Your task to perform on an android device: Play the new Beyonce video on YouTube Image 0: 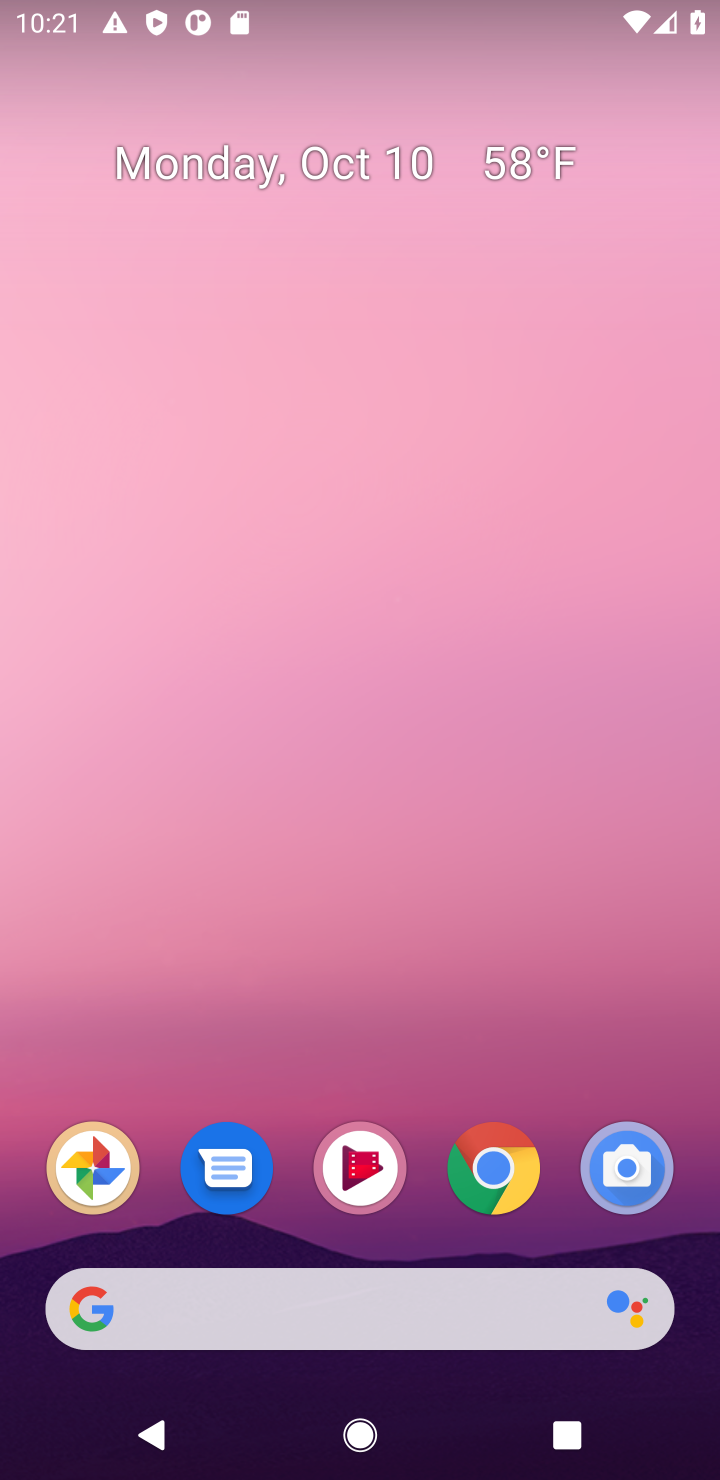
Step 0: drag from (386, 859) to (446, 407)
Your task to perform on an android device: Play the new Beyonce video on YouTube Image 1: 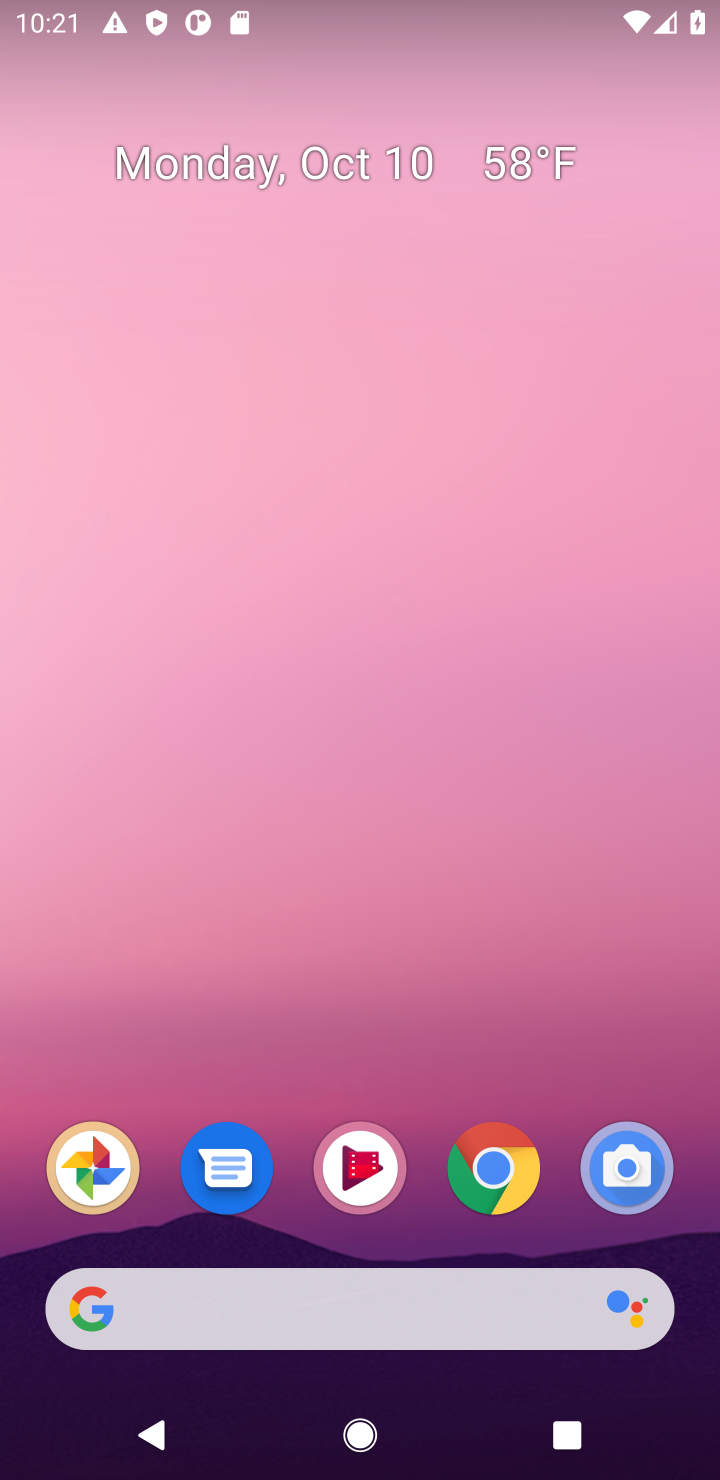
Step 1: drag from (359, 665) to (387, 274)
Your task to perform on an android device: Play the new Beyonce video on YouTube Image 2: 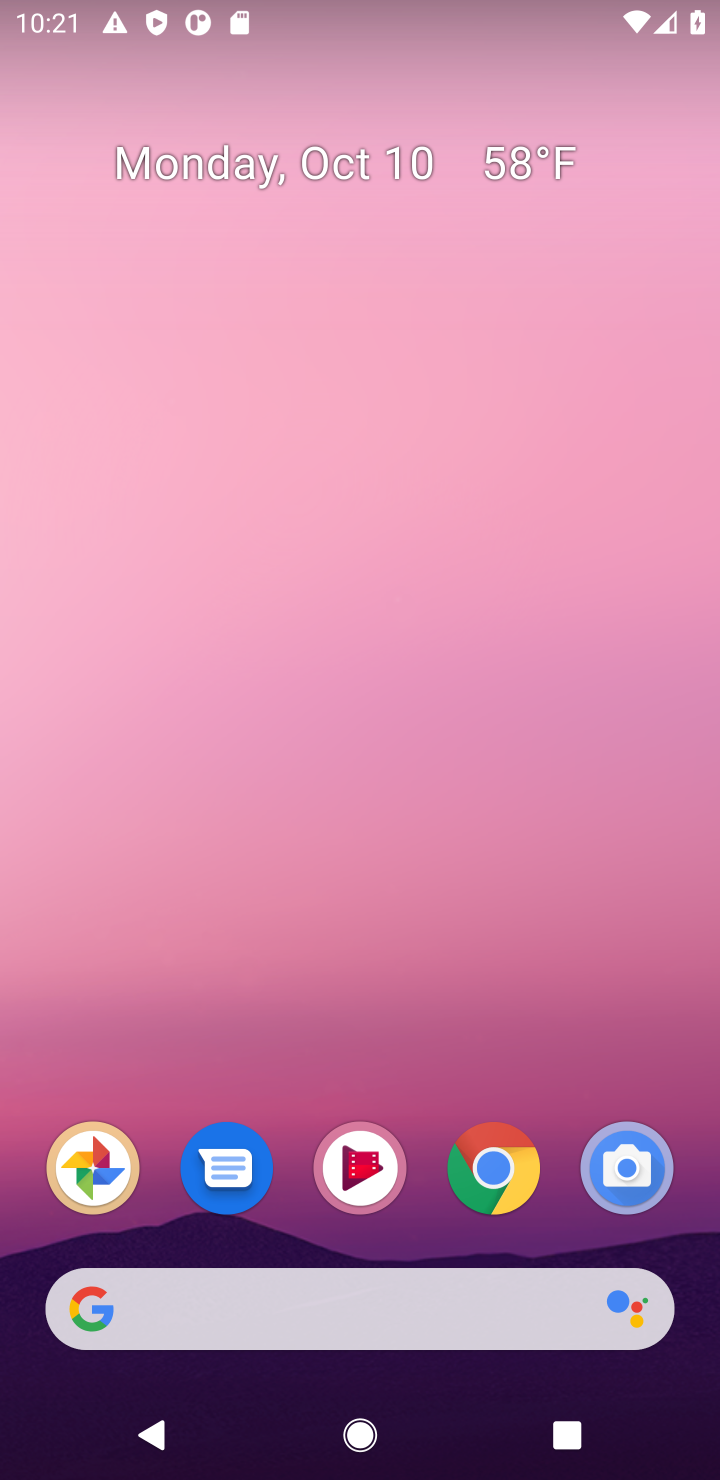
Step 2: drag from (346, 985) to (362, 303)
Your task to perform on an android device: Play the new Beyonce video on YouTube Image 3: 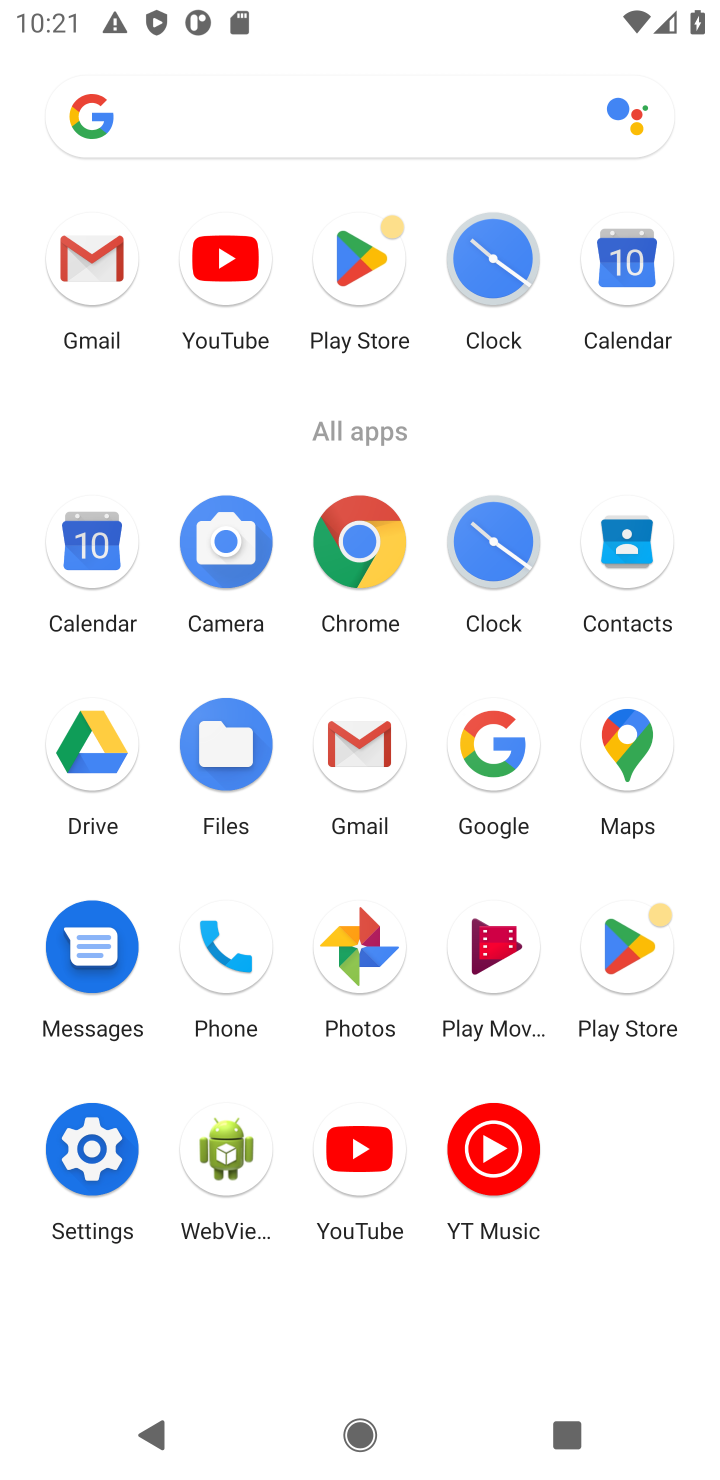
Step 3: click (238, 267)
Your task to perform on an android device: Play the new Beyonce video on YouTube Image 4: 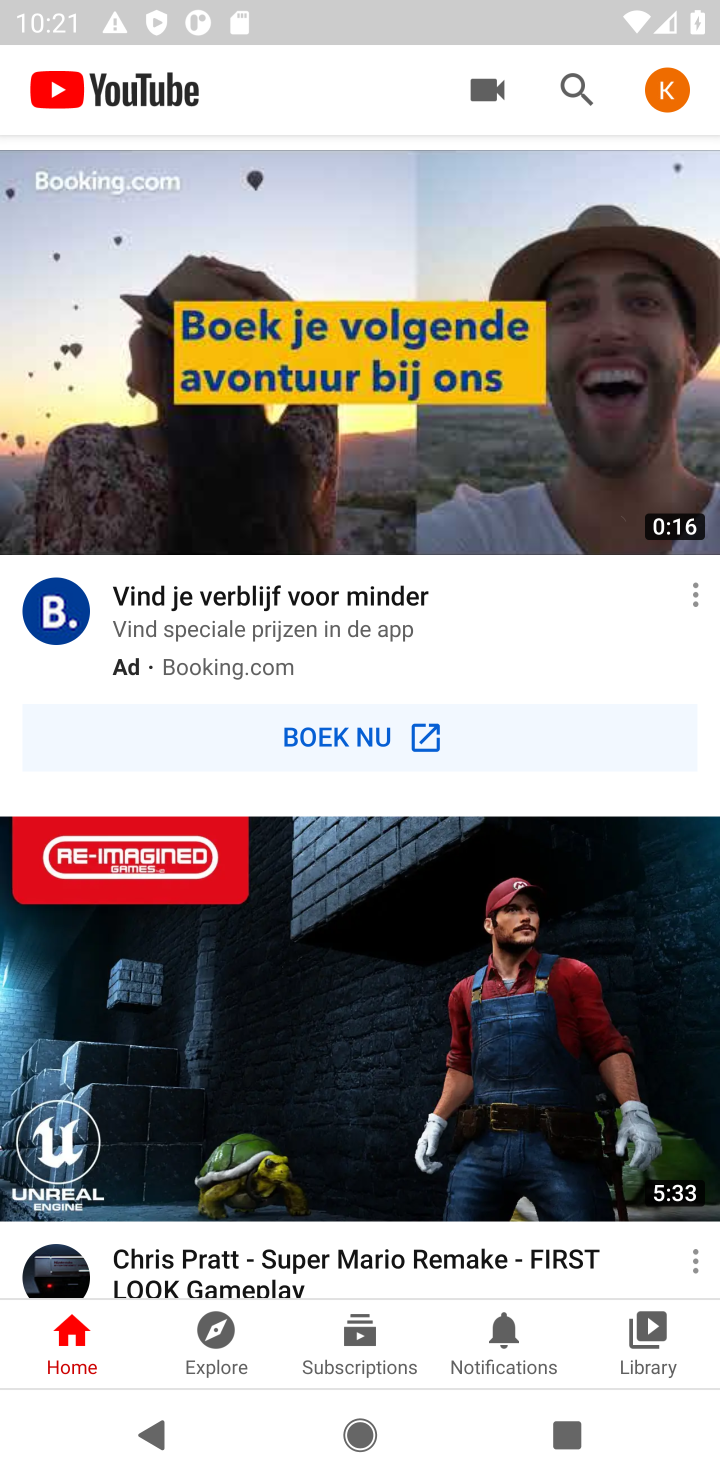
Step 4: click (591, 90)
Your task to perform on an android device: Play the new Beyonce video on YouTube Image 5: 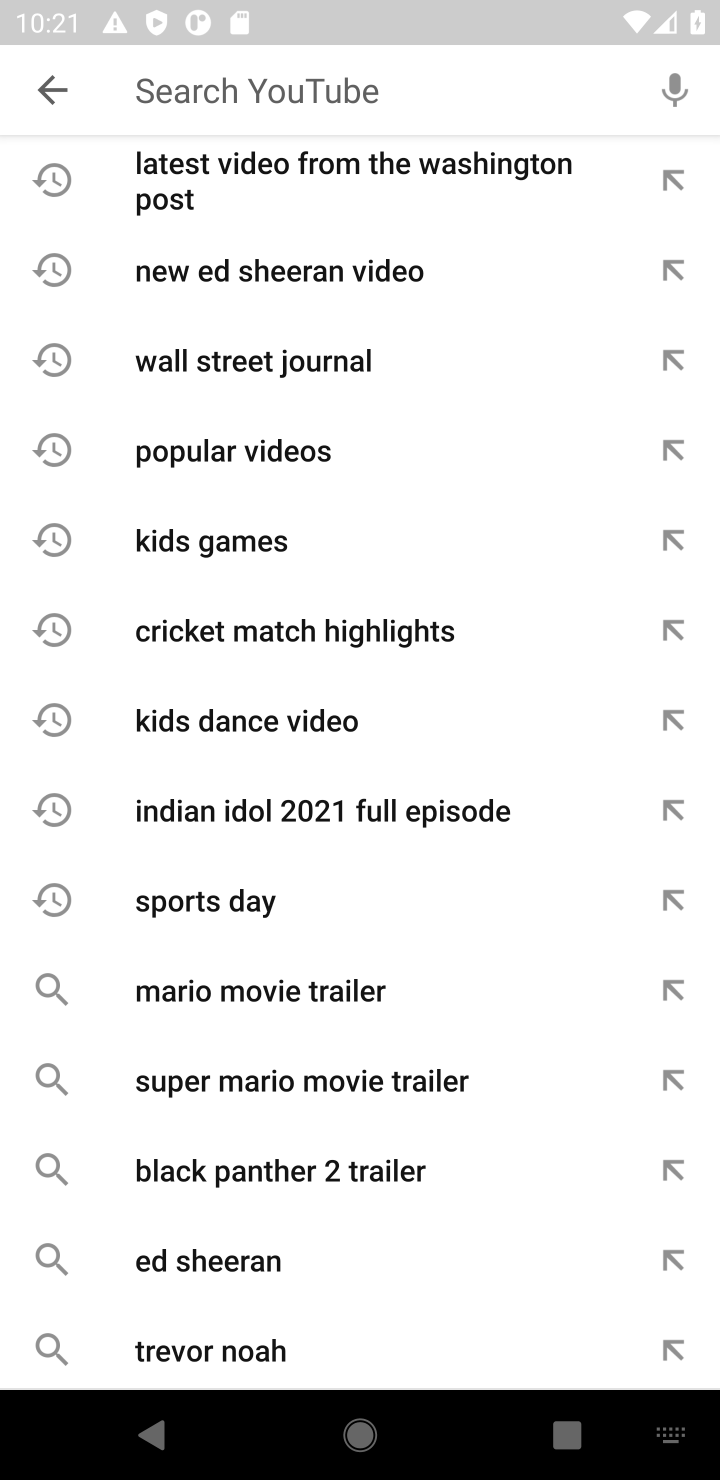
Step 5: type "Beyonce video on YouTube"
Your task to perform on an android device: Play the new Beyonce video on YouTube Image 6: 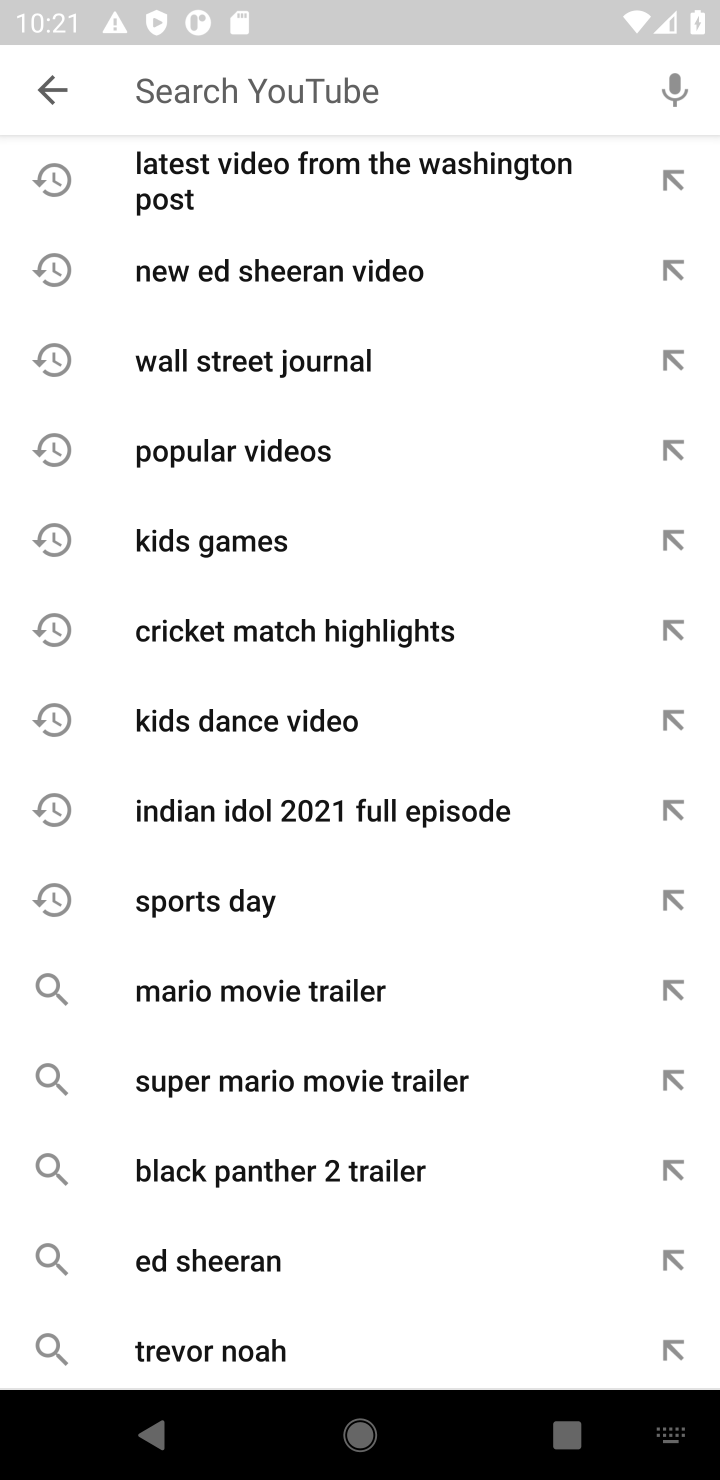
Step 6: click (339, 100)
Your task to perform on an android device: Play the new Beyonce video on YouTube Image 7: 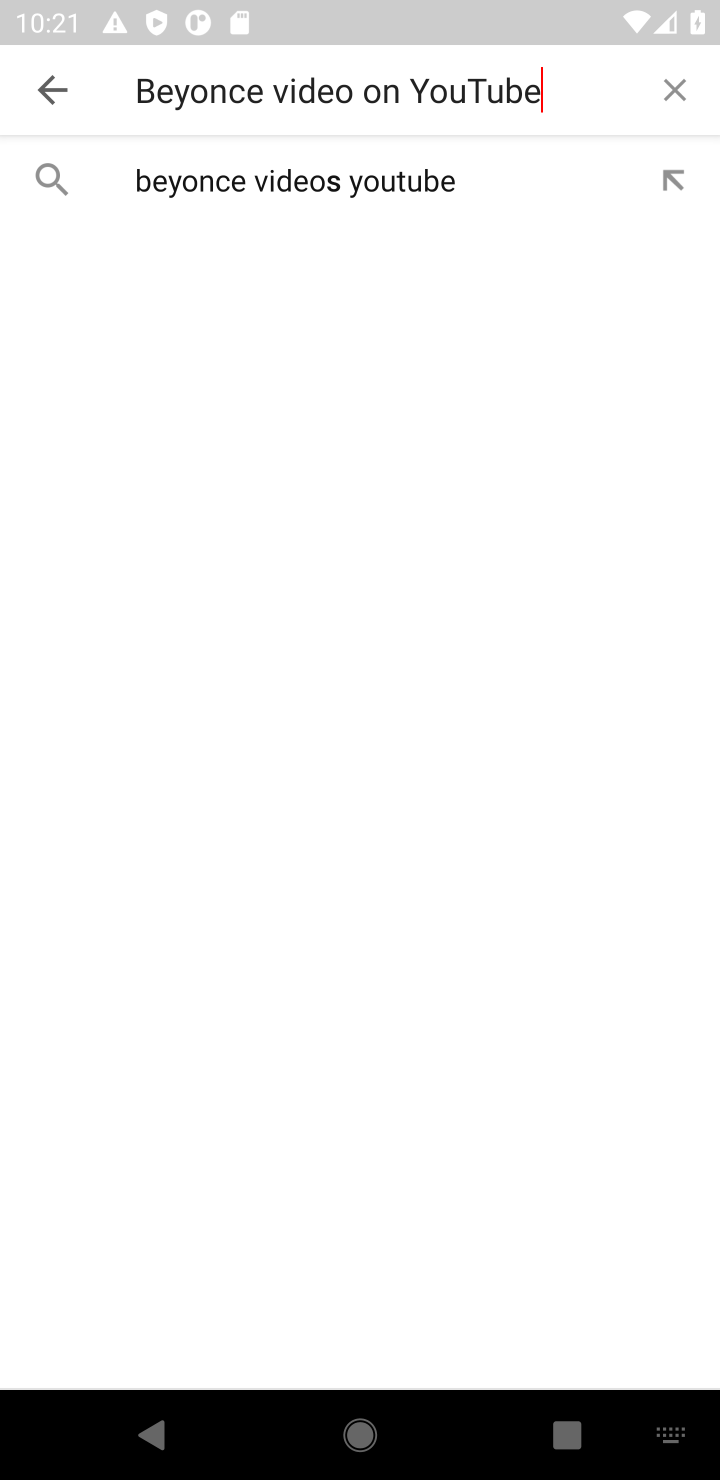
Step 7: type ""
Your task to perform on an android device: Play the new Beyonce video on YouTube Image 8: 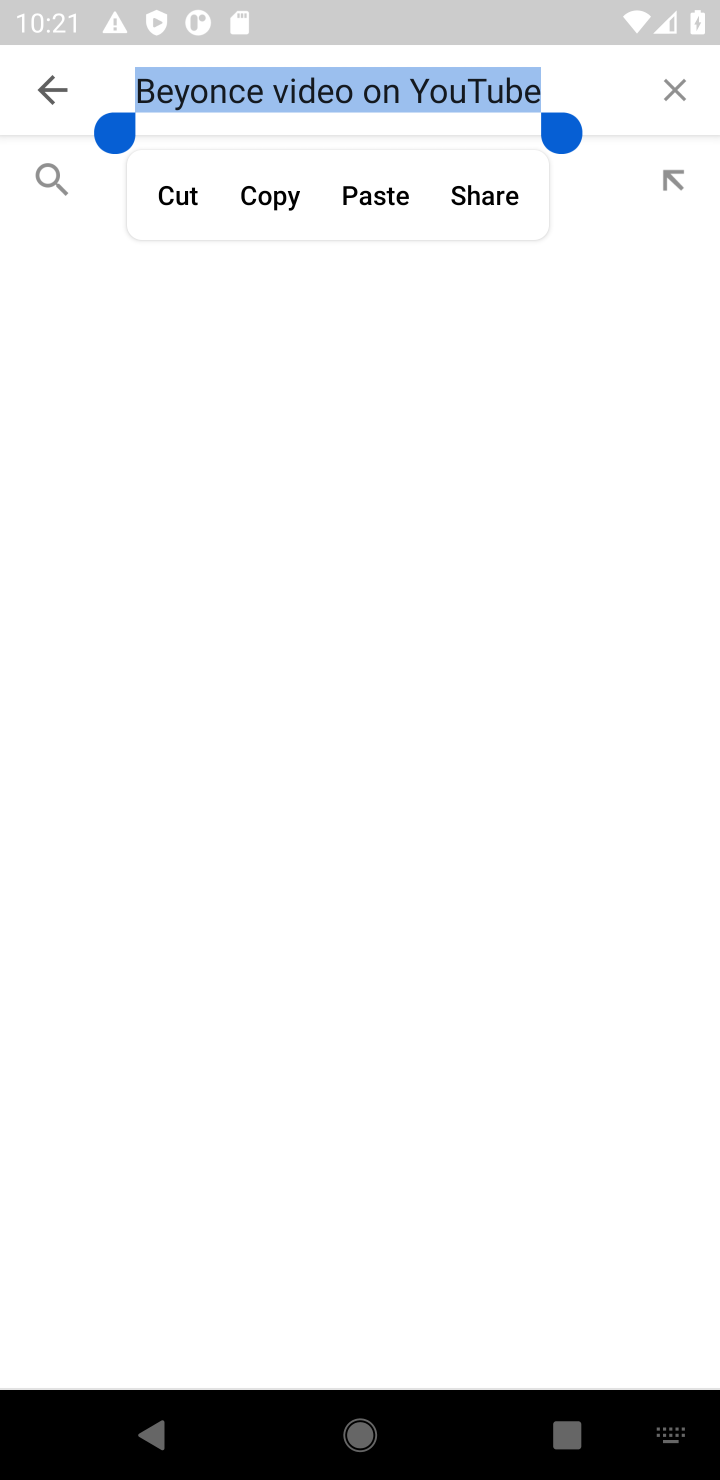
Step 8: click (325, 452)
Your task to perform on an android device: Play the new Beyonce video on YouTube Image 9: 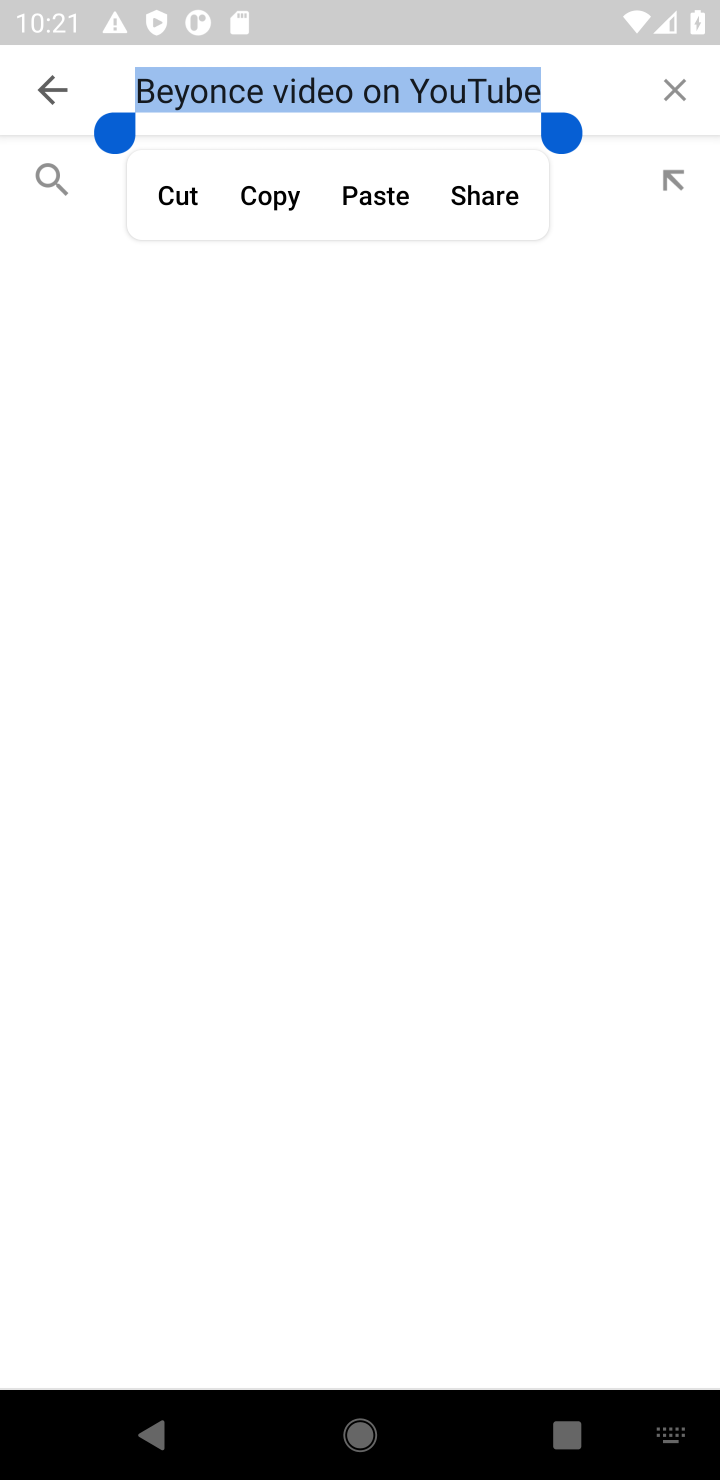
Step 9: click (76, 310)
Your task to perform on an android device: Play the new Beyonce video on YouTube Image 10: 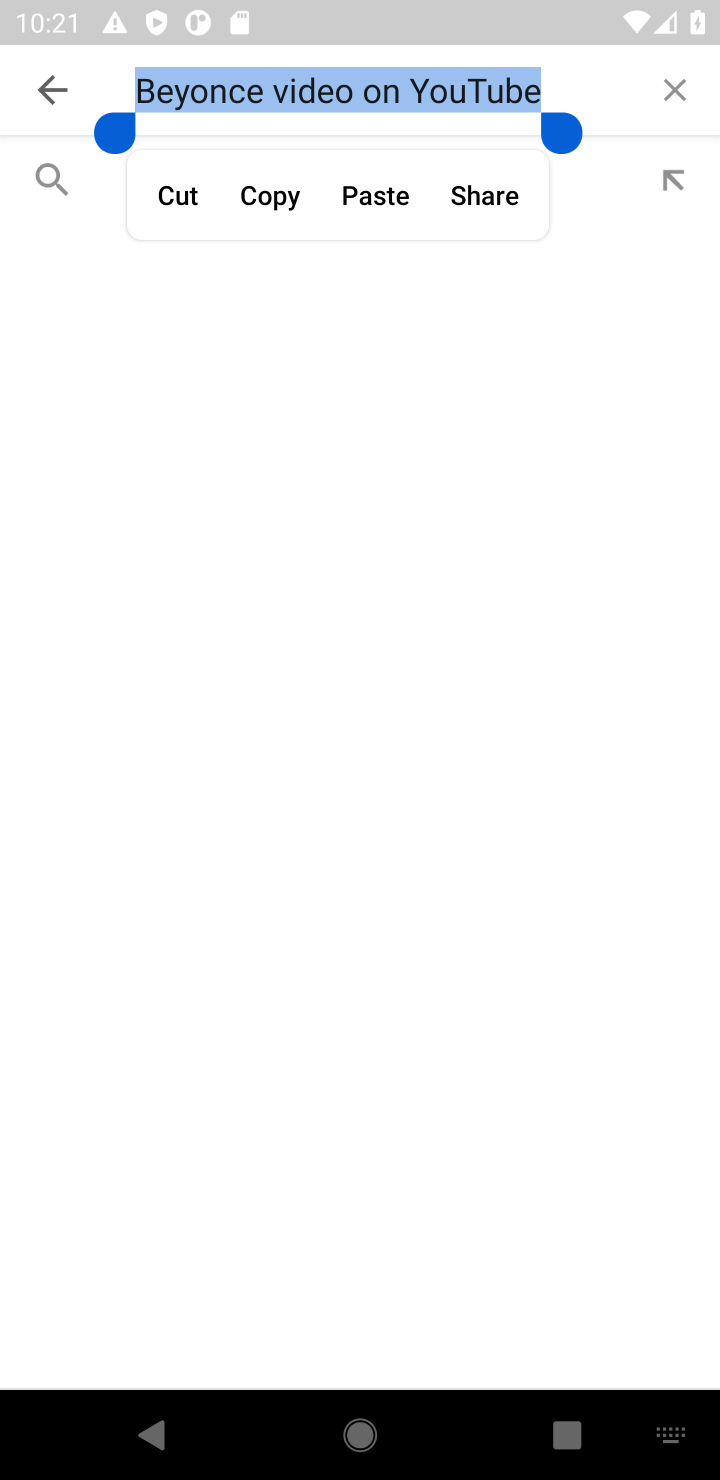
Step 10: click (609, 119)
Your task to perform on an android device: Play the new Beyonce video on YouTube Image 11: 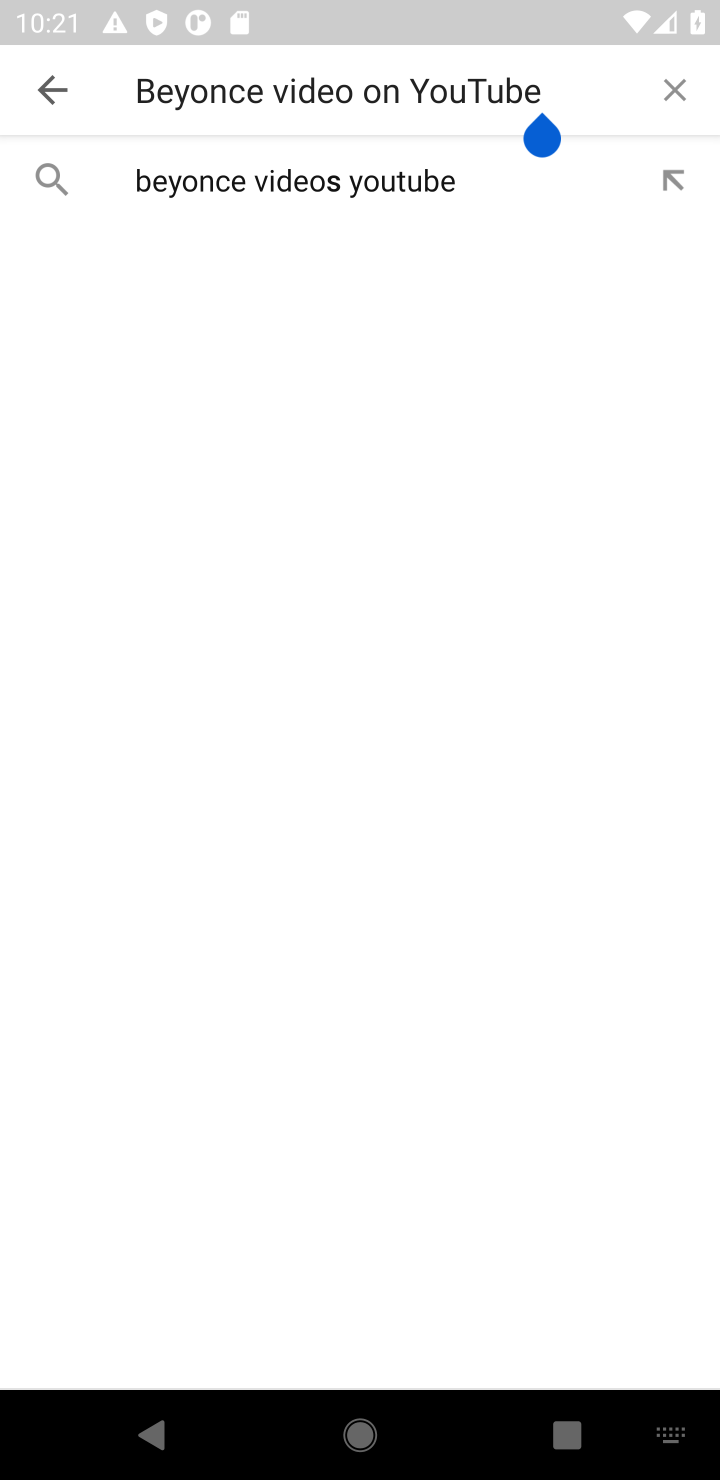
Step 11: click (360, 187)
Your task to perform on an android device: Play the new Beyonce video on YouTube Image 12: 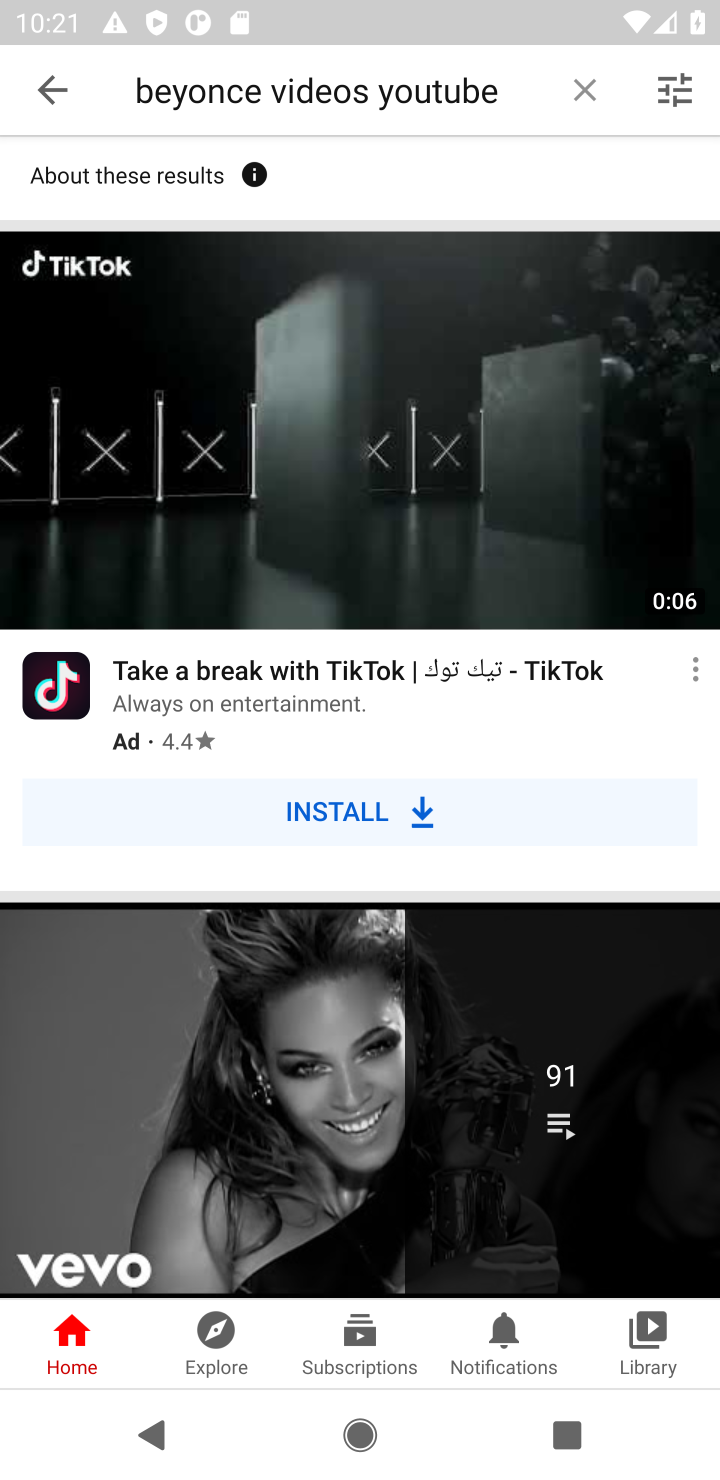
Step 12: drag from (404, 1008) to (446, 324)
Your task to perform on an android device: Play the new Beyonce video on YouTube Image 13: 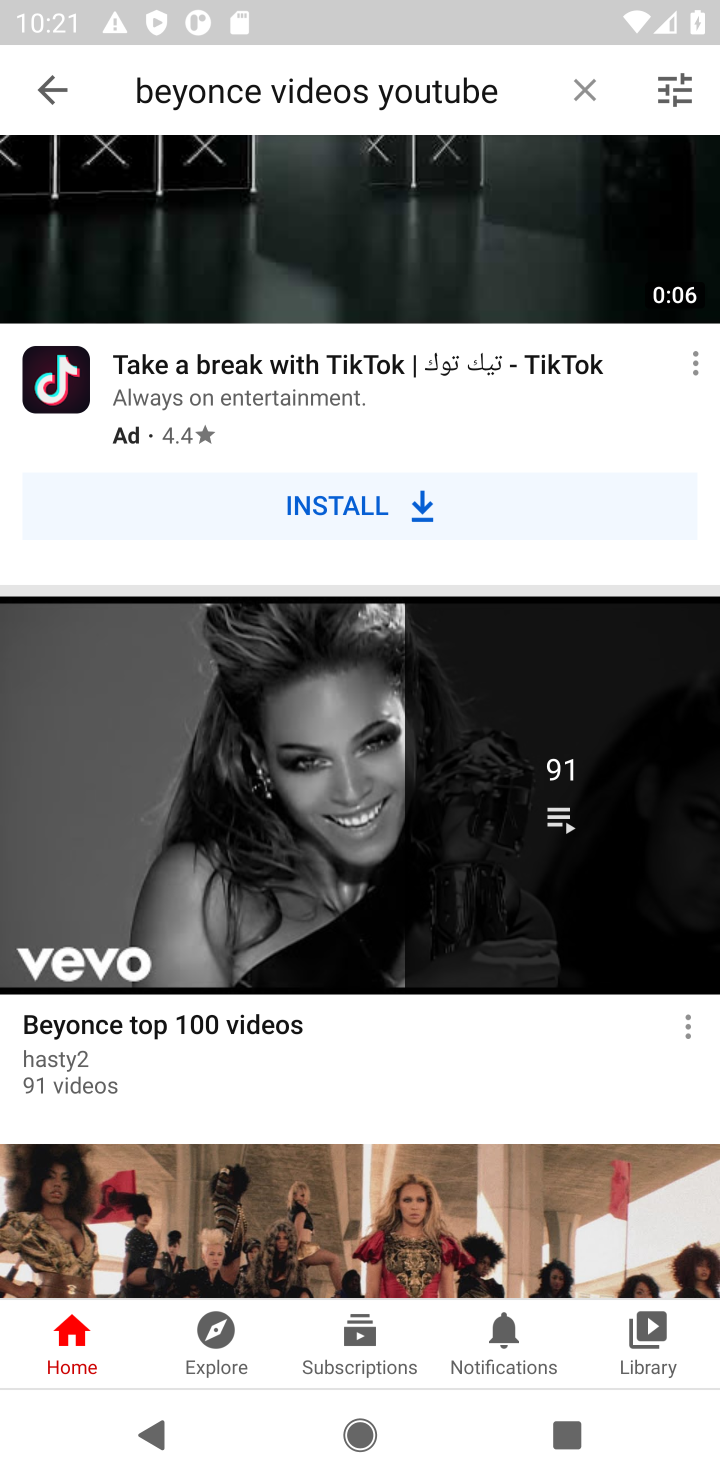
Step 13: drag from (392, 879) to (446, 410)
Your task to perform on an android device: Play the new Beyonce video on YouTube Image 14: 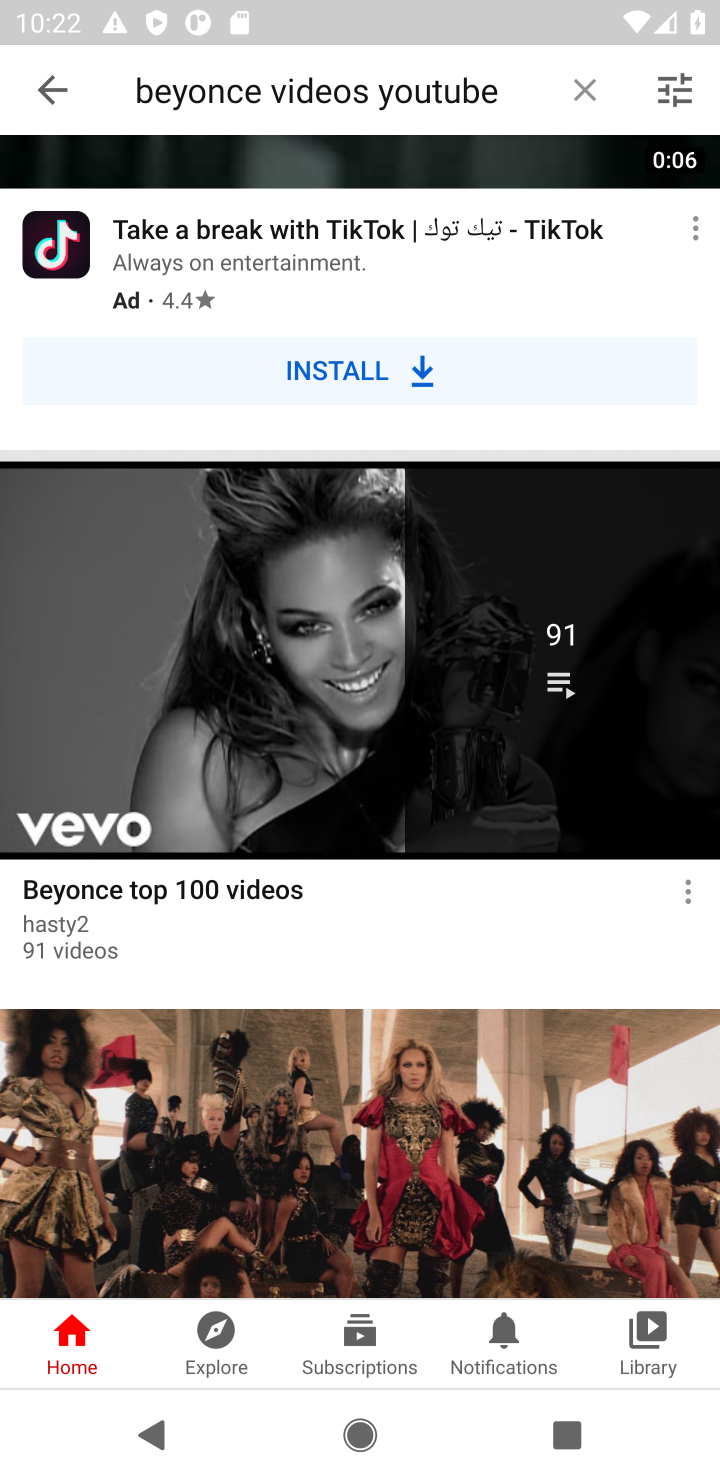
Step 14: click (326, 1102)
Your task to perform on an android device: Play the new Beyonce video on YouTube Image 15: 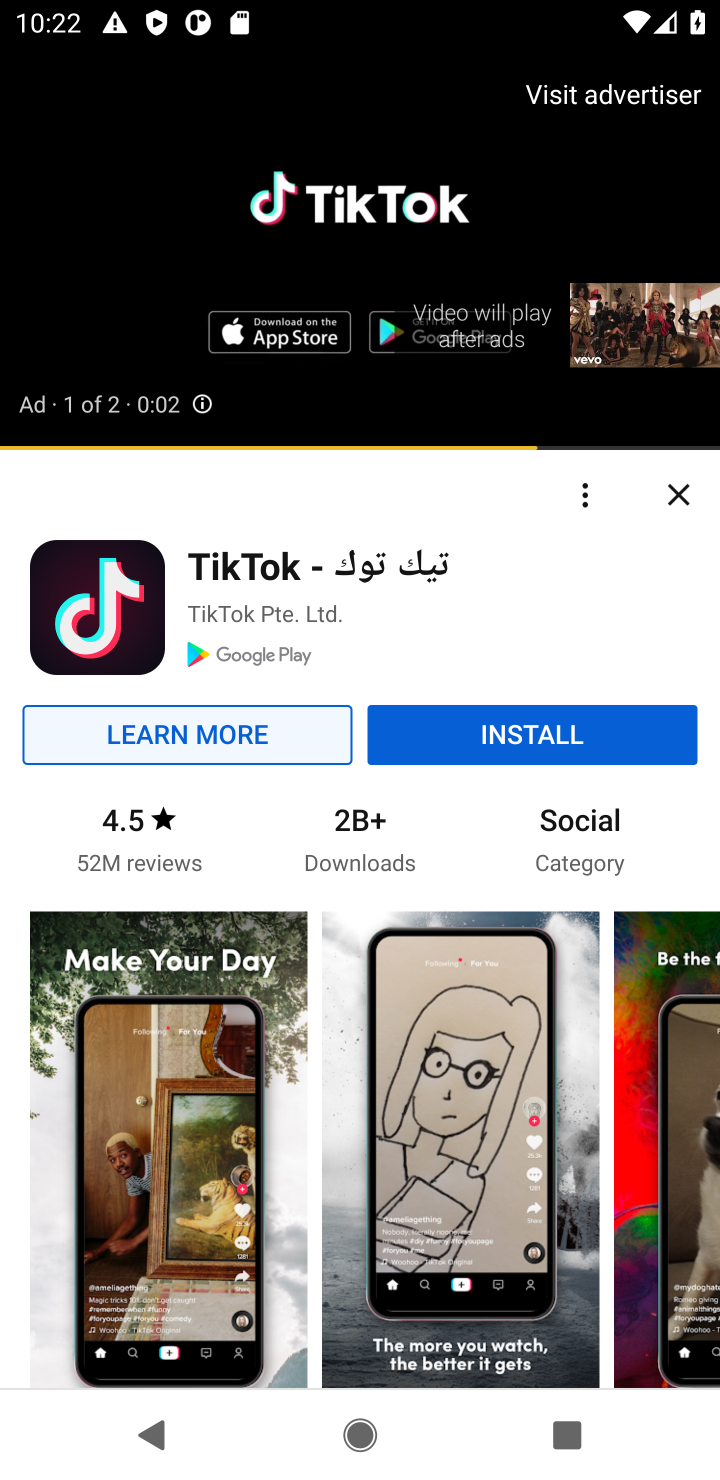
Step 15: click (674, 485)
Your task to perform on an android device: Play the new Beyonce video on YouTube Image 16: 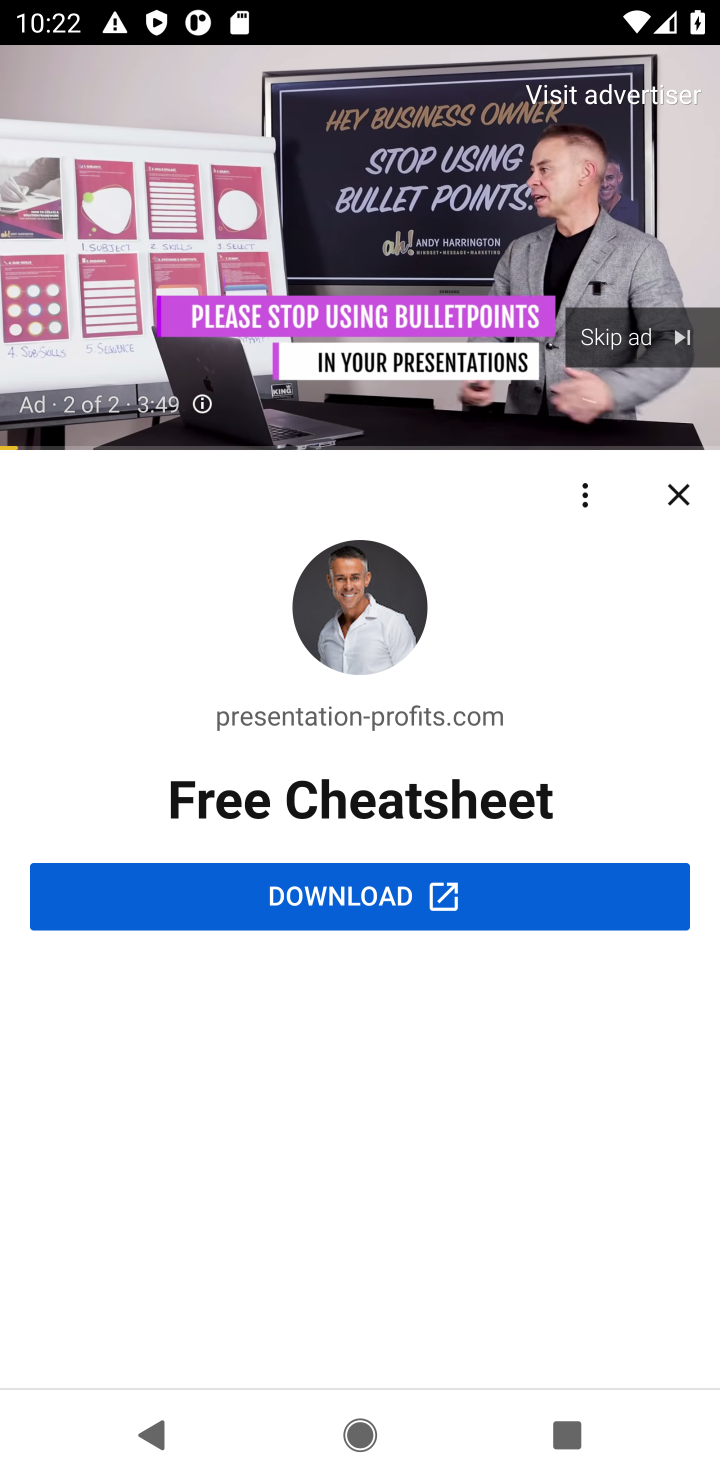
Step 16: click (605, 327)
Your task to perform on an android device: Play the new Beyonce video on YouTube Image 17: 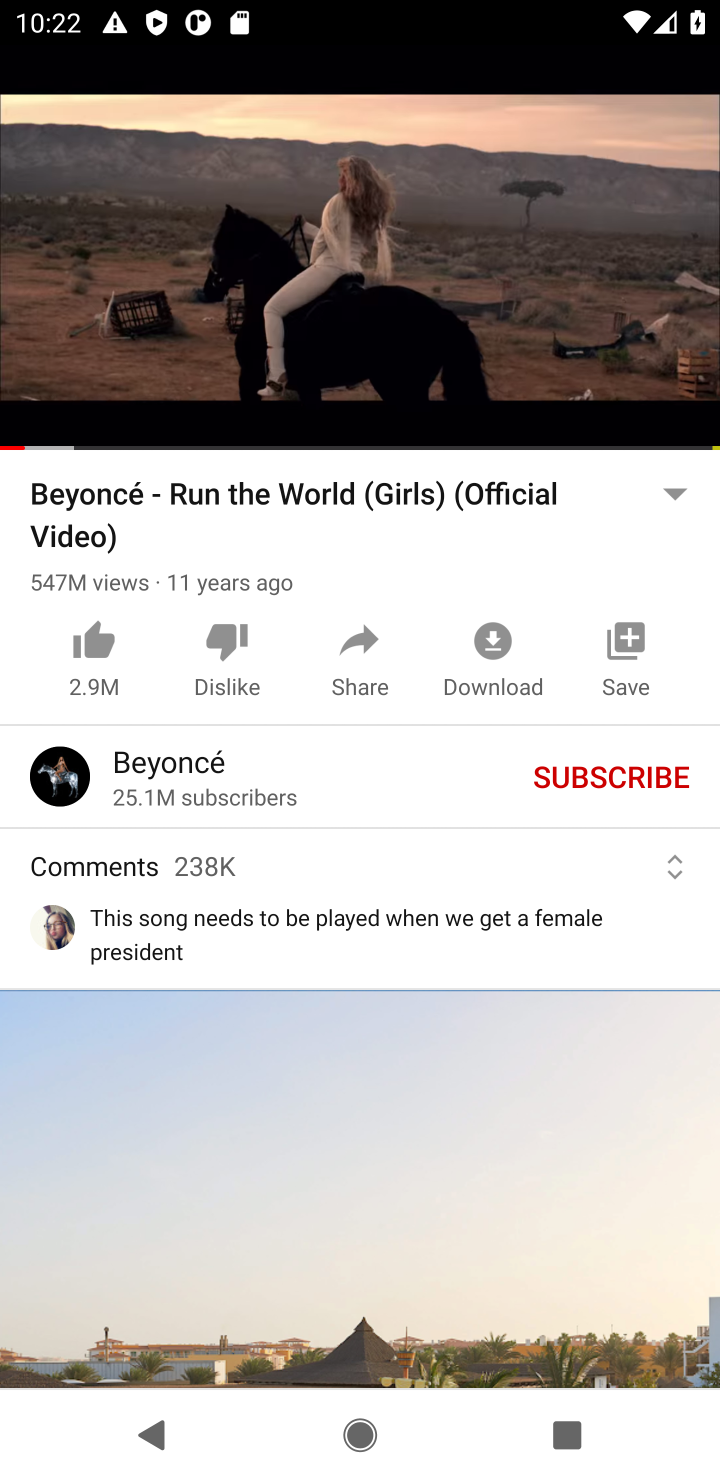
Step 17: click (378, 274)
Your task to perform on an android device: Play the new Beyonce video on YouTube Image 18: 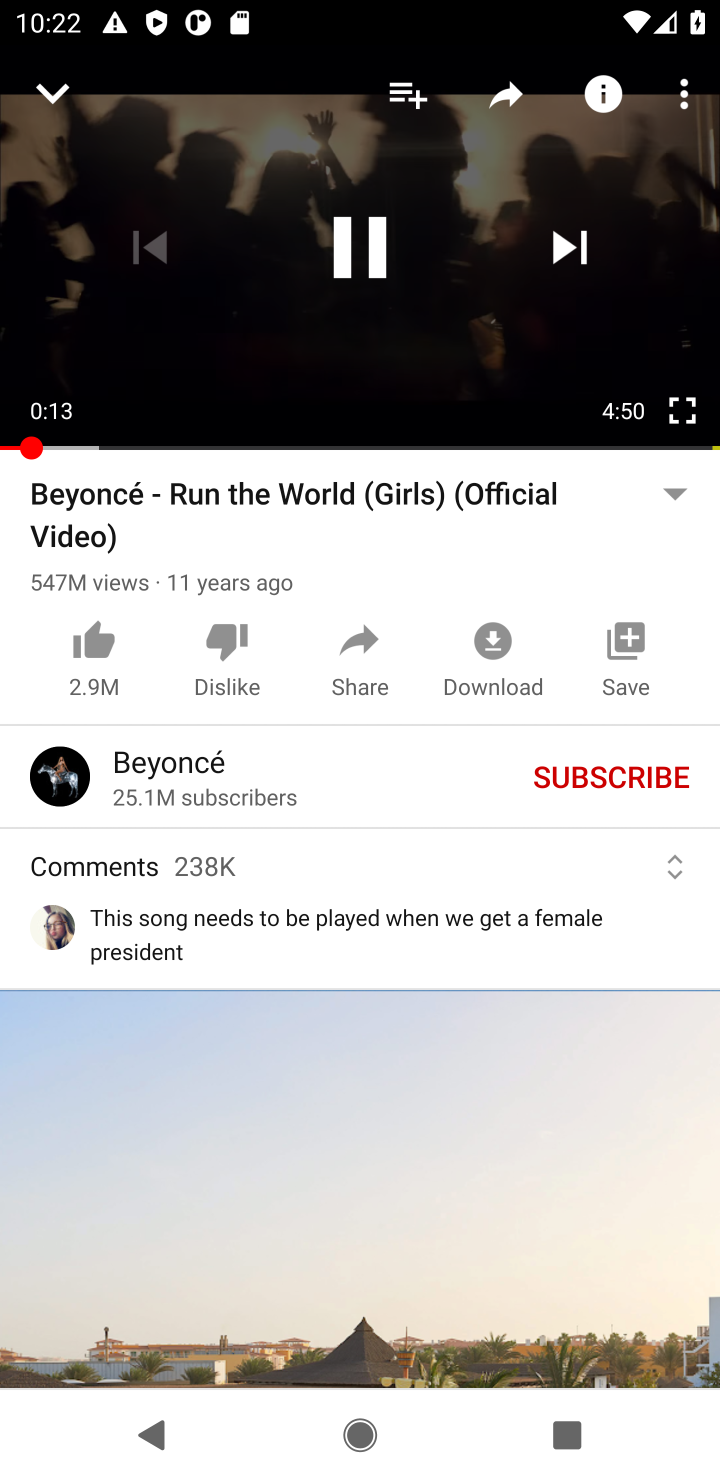
Step 18: click (358, 259)
Your task to perform on an android device: Play the new Beyonce video on YouTube Image 19: 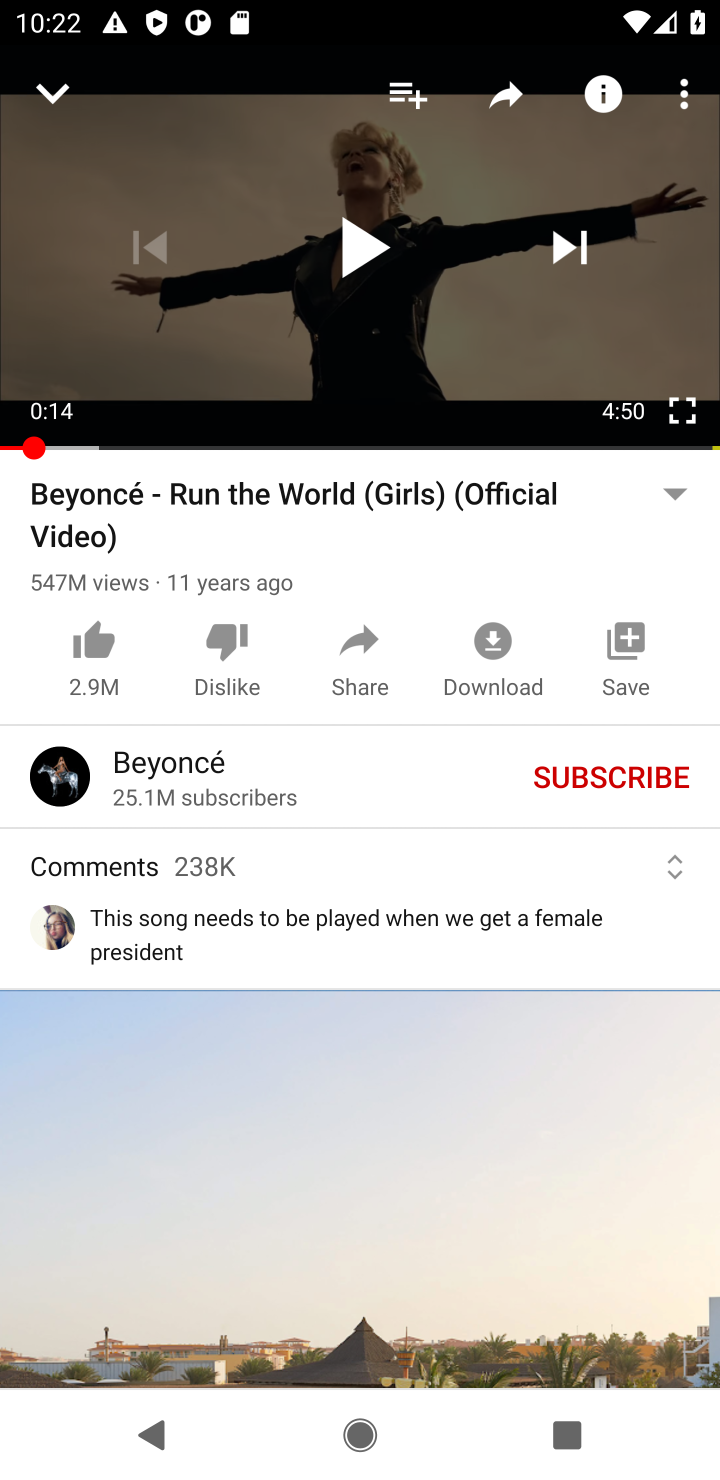
Step 19: task complete